Your task to perform on an android device: uninstall "Pinterest" Image 0: 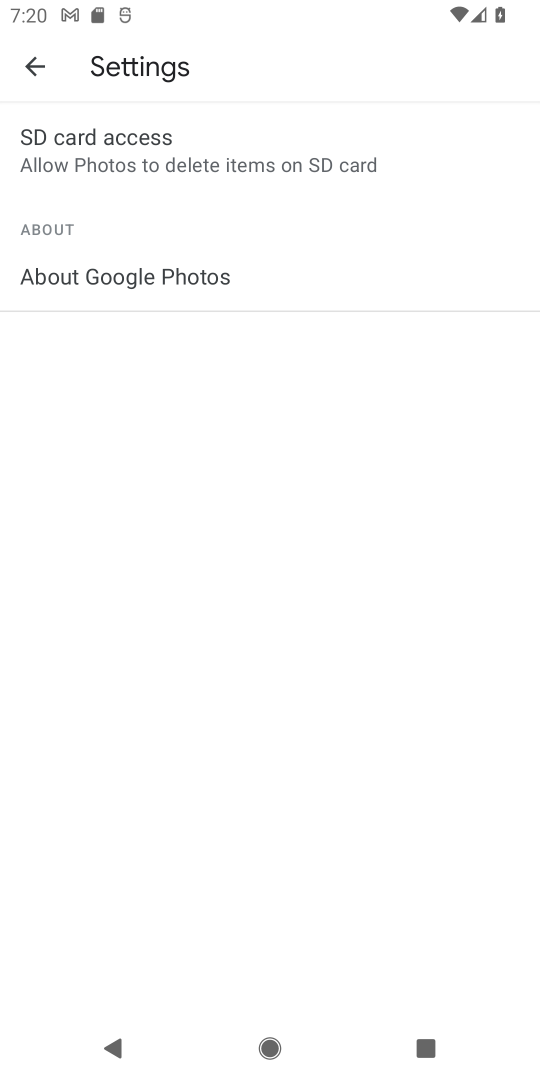
Step 0: press home button
Your task to perform on an android device: uninstall "Pinterest" Image 1: 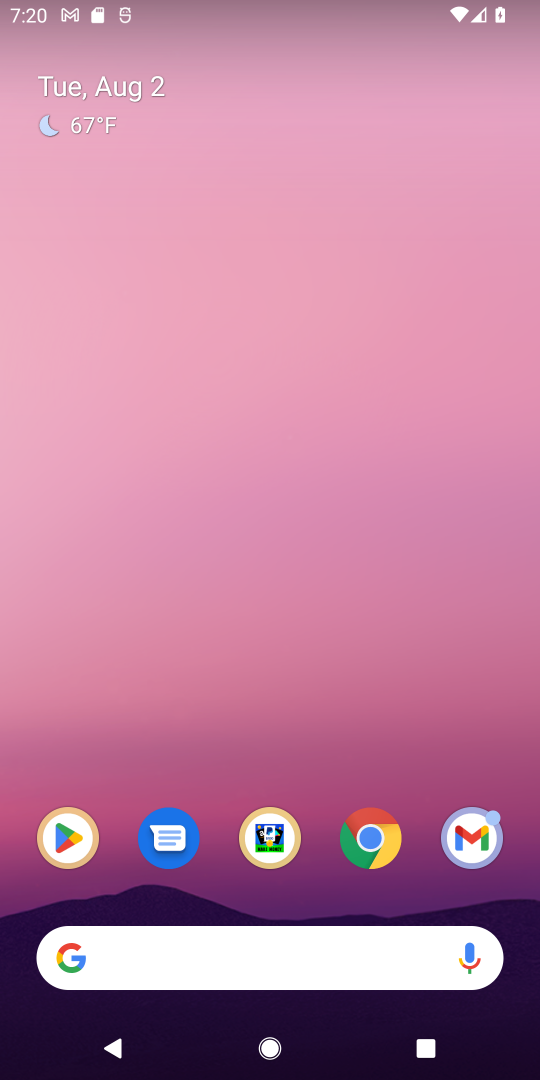
Step 1: click (69, 834)
Your task to perform on an android device: uninstall "Pinterest" Image 2: 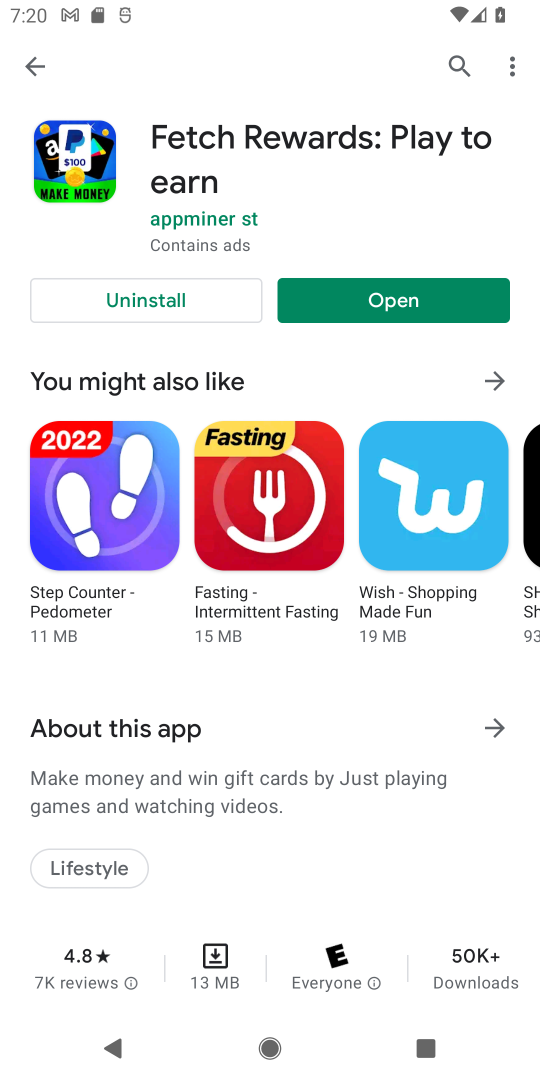
Step 2: click (466, 58)
Your task to perform on an android device: uninstall "Pinterest" Image 3: 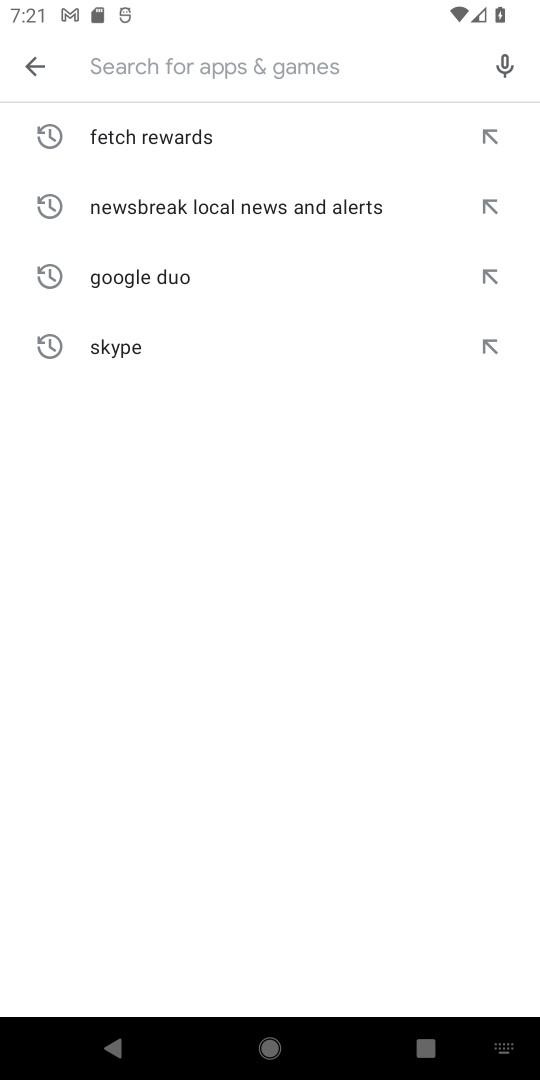
Step 3: type "pinterest"
Your task to perform on an android device: uninstall "Pinterest" Image 4: 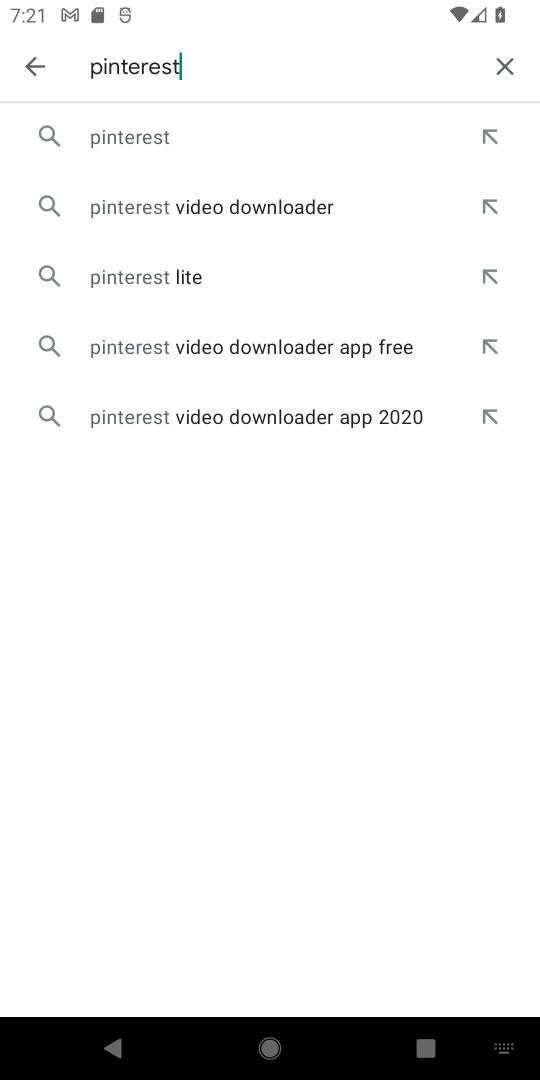
Step 4: click (236, 135)
Your task to perform on an android device: uninstall "Pinterest" Image 5: 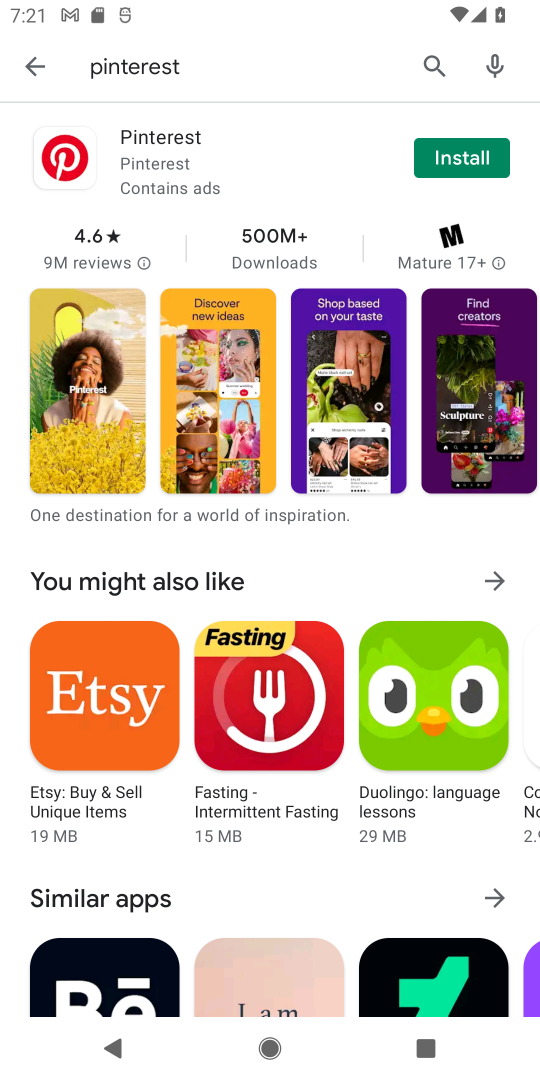
Step 5: click (256, 149)
Your task to perform on an android device: uninstall "Pinterest" Image 6: 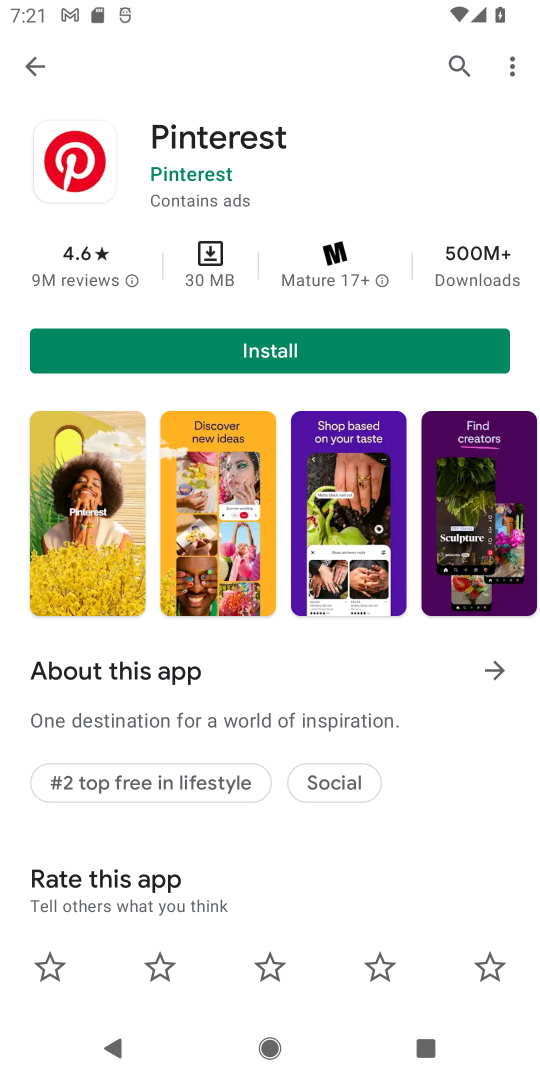
Step 6: task complete